Your task to perform on an android device: How do I get to the nearest Verizon Store? Image 0: 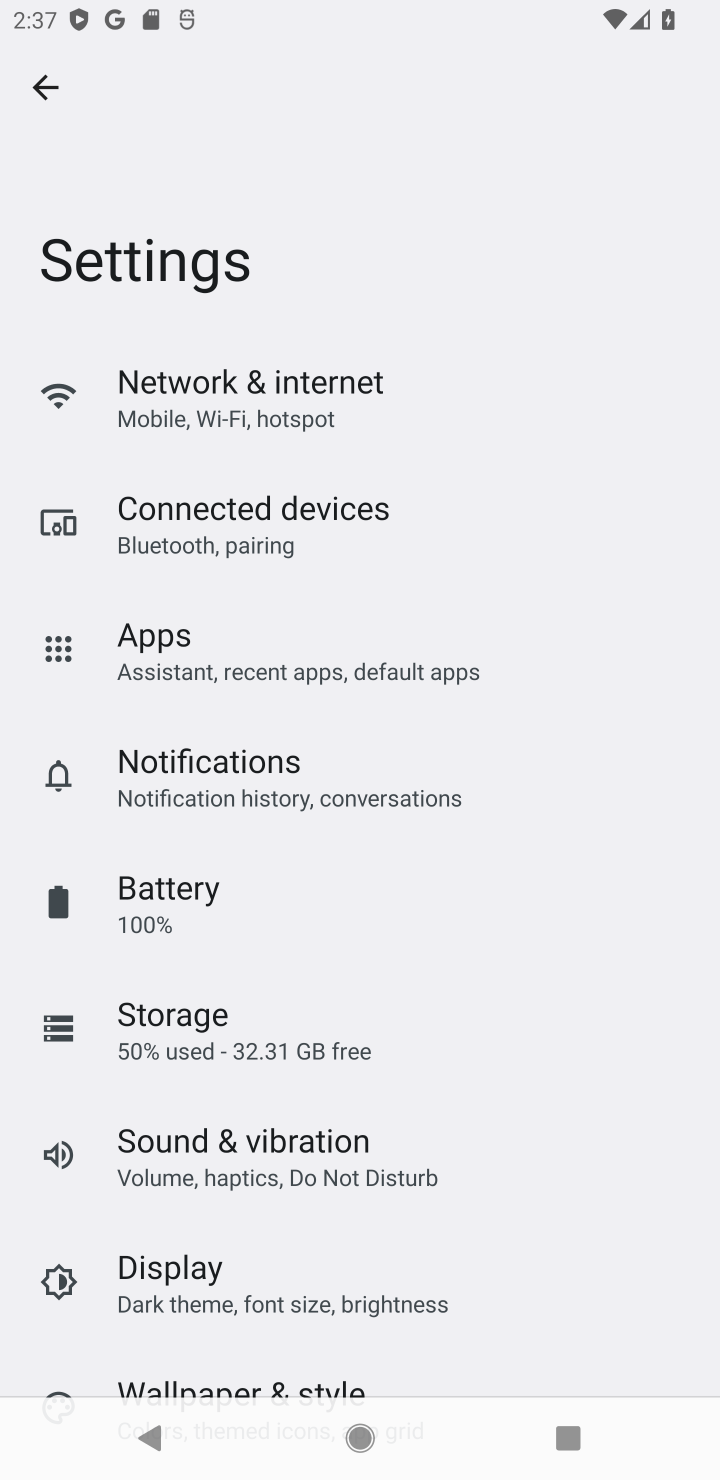
Step 0: press home button
Your task to perform on an android device: How do I get to the nearest Verizon Store? Image 1: 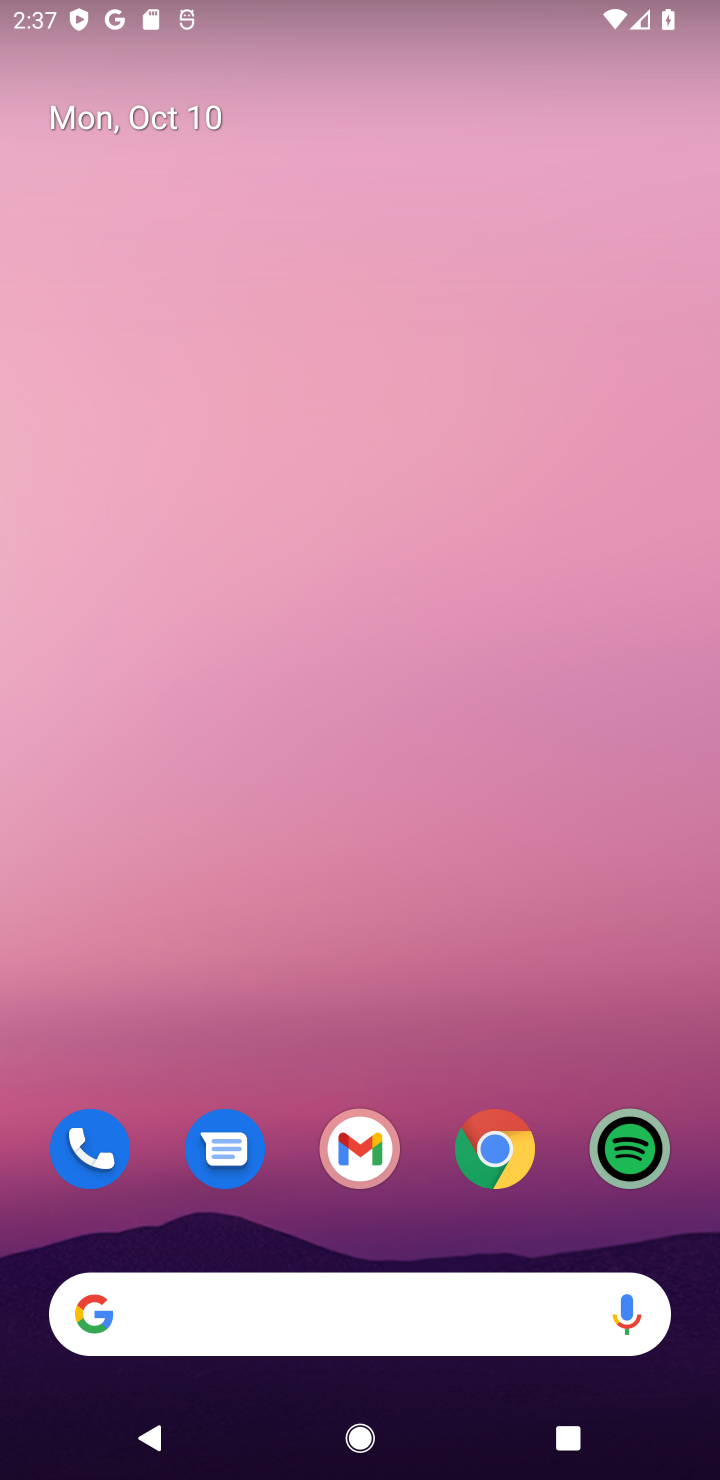
Step 1: drag from (674, 1388) to (150, 1453)
Your task to perform on an android device: How do I get to the nearest Verizon Store? Image 2: 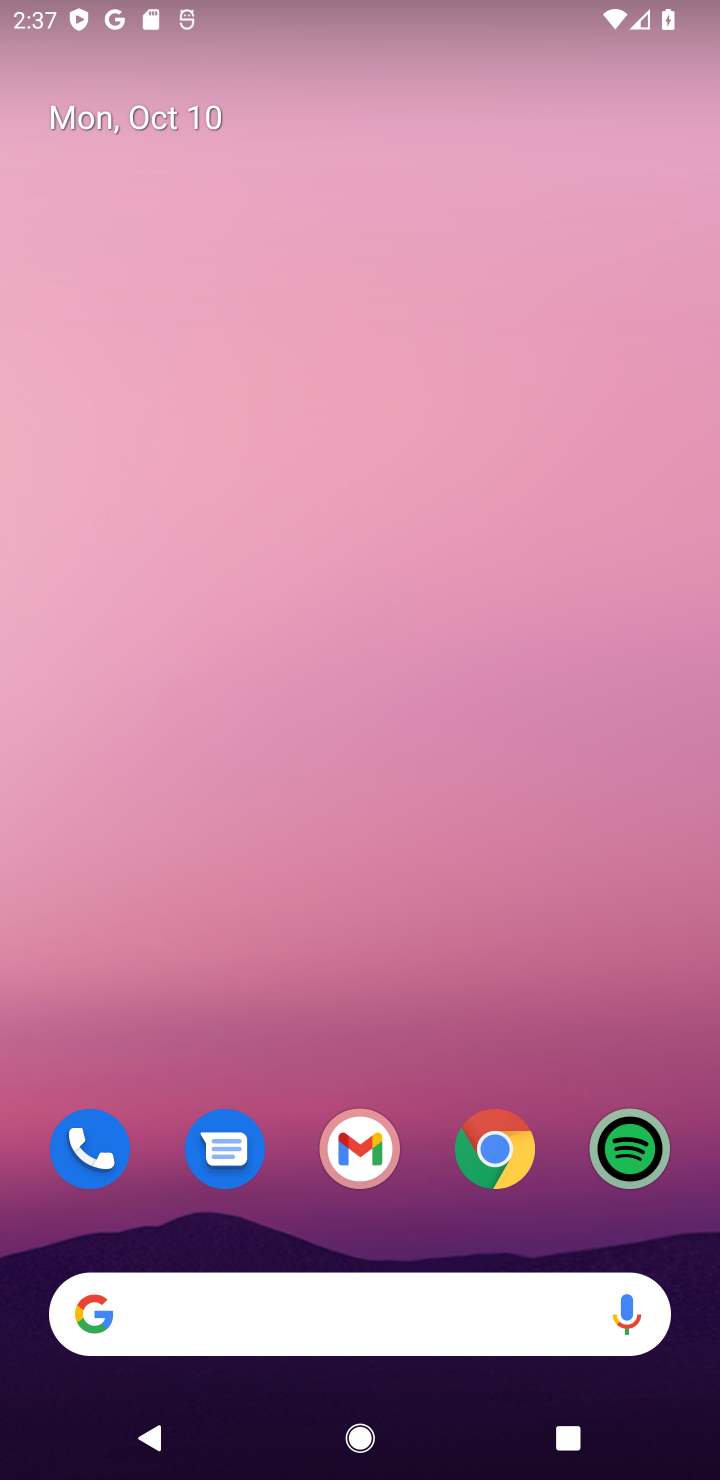
Step 2: click (258, 1333)
Your task to perform on an android device: How do I get to the nearest Verizon Store? Image 3: 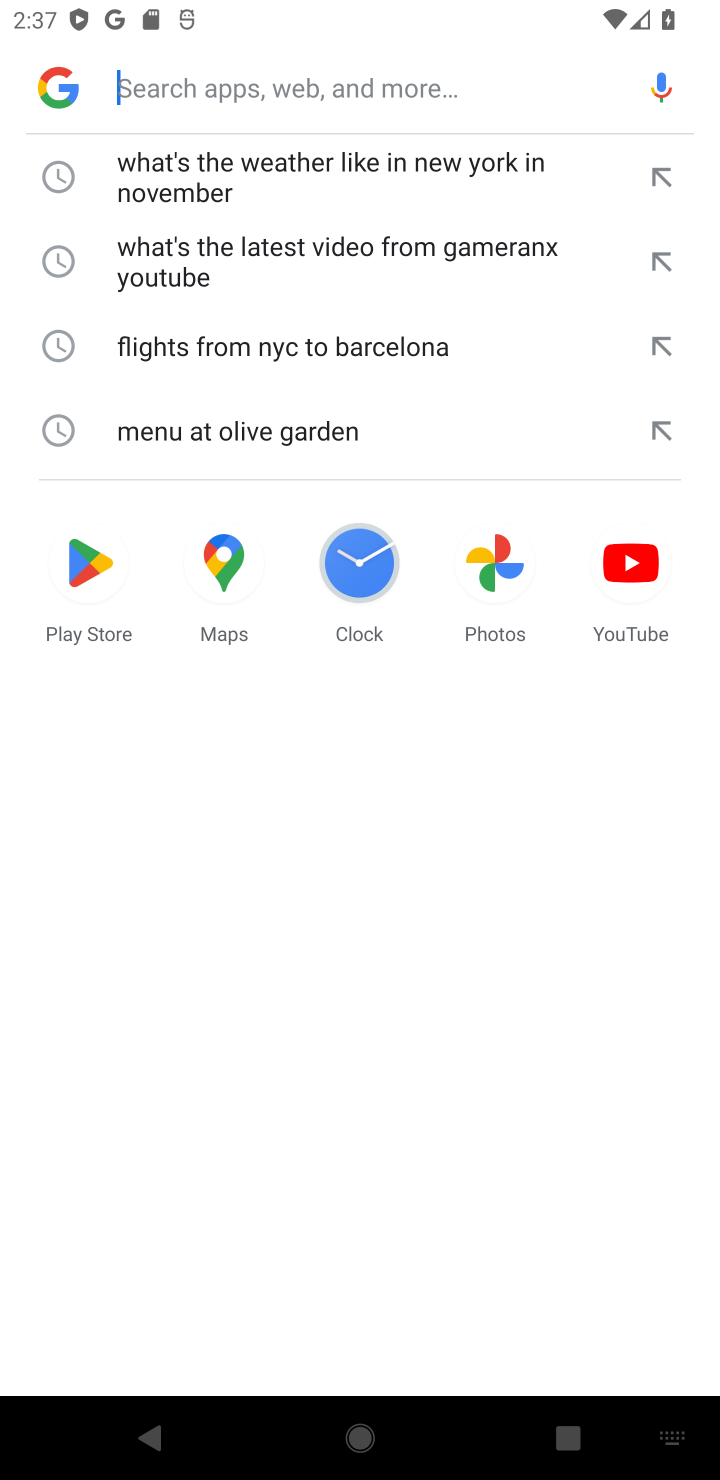
Step 3: type "How do I get to the nearest Verizon Store"
Your task to perform on an android device: How do I get to the nearest Verizon Store? Image 4: 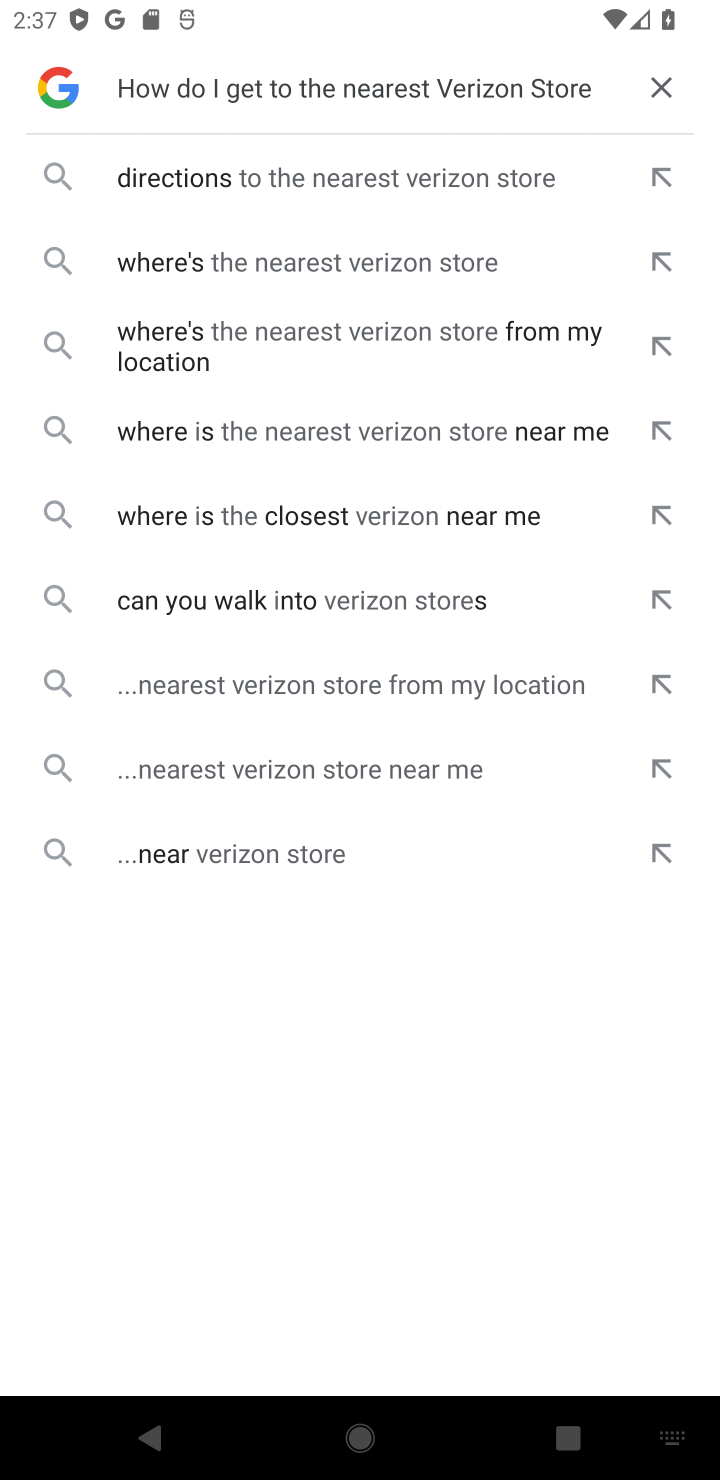
Step 4: click (325, 180)
Your task to perform on an android device: How do I get to the nearest Verizon Store? Image 5: 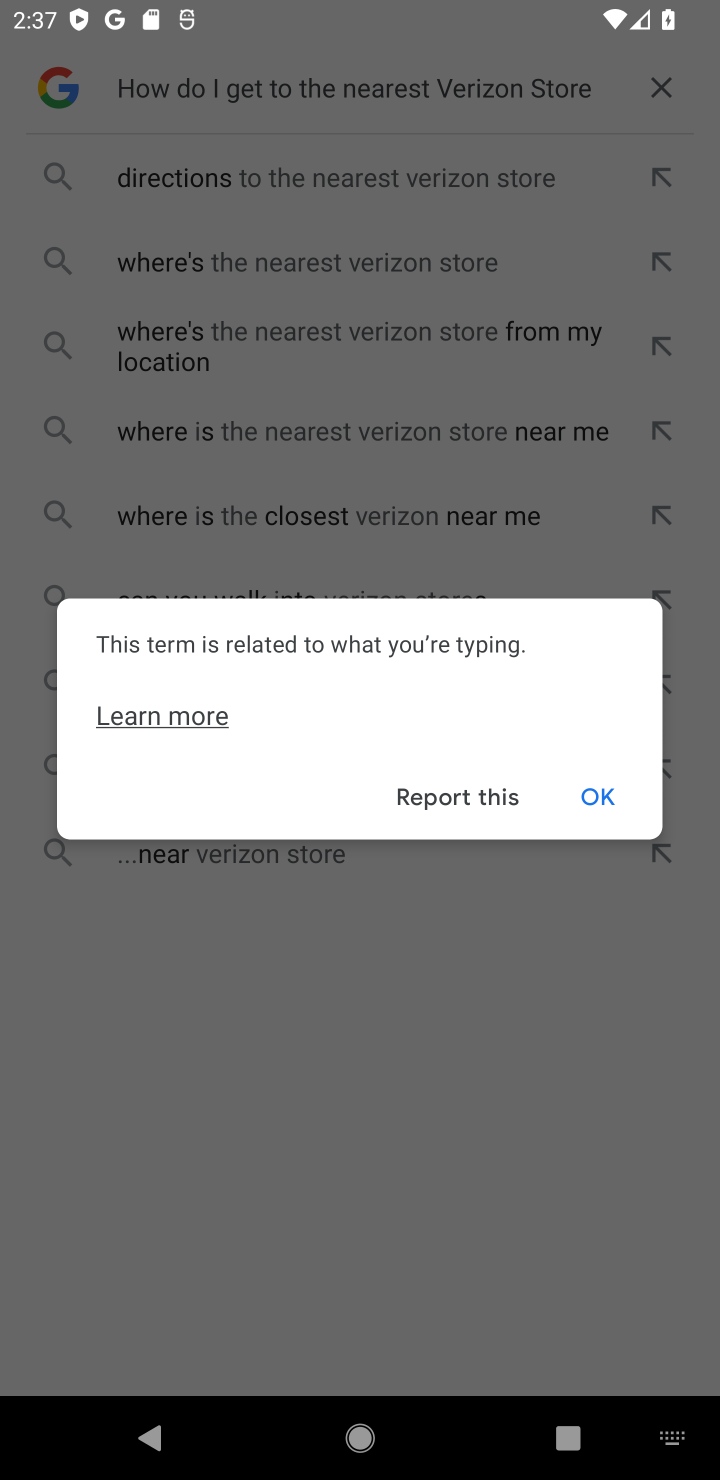
Step 5: click (605, 796)
Your task to perform on an android device: How do I get to the nearest Verizon Store? Image 6: 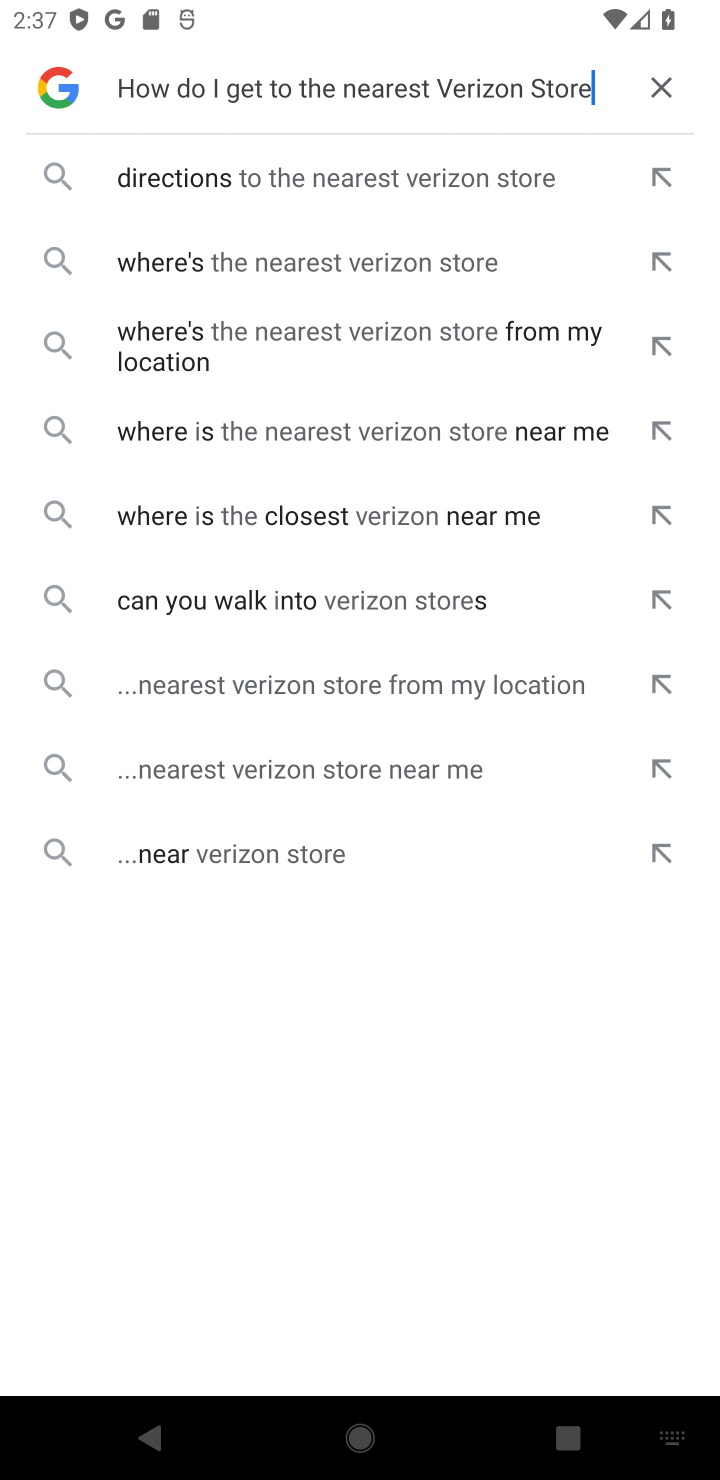
Step 6: click (365, 188)
Your task to perform on an android device: How do I get to the nearest Verizon Store? Image 7: 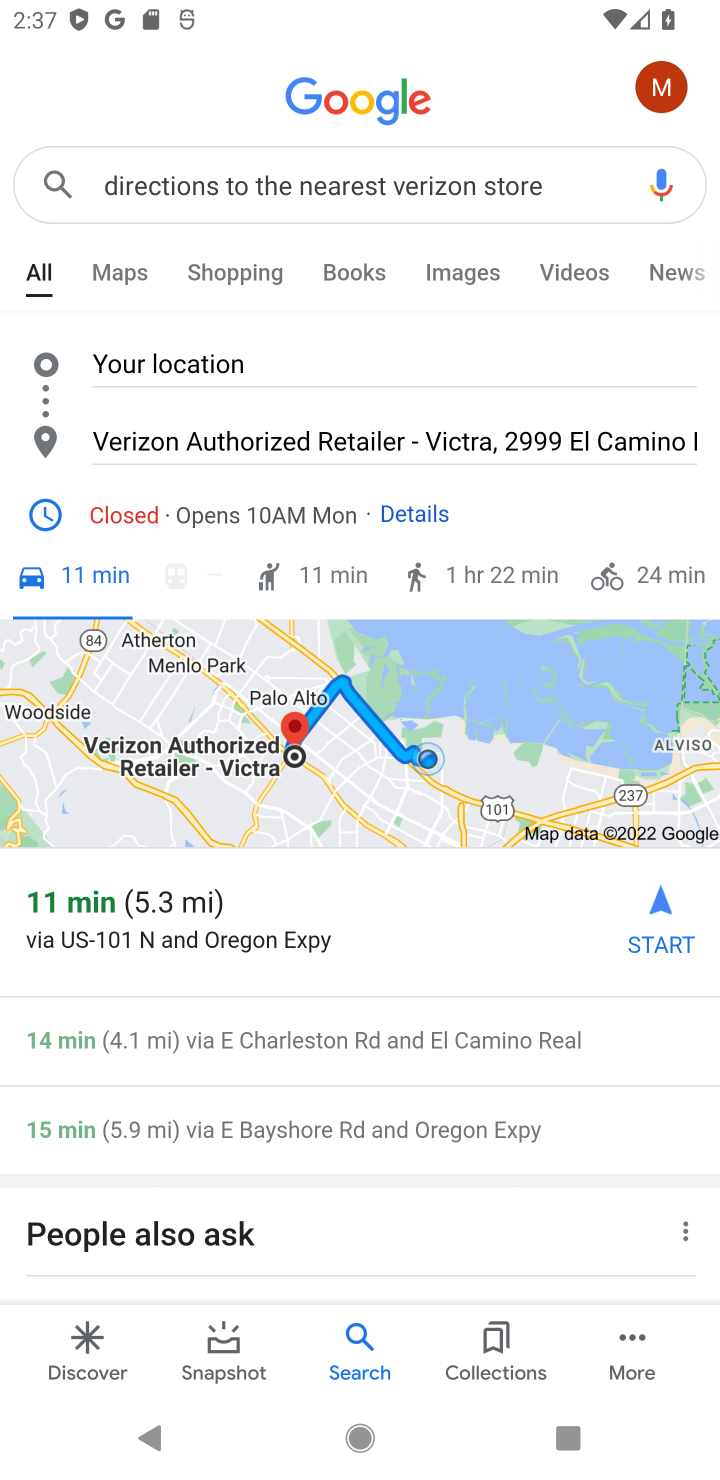
Step 7: task complete